Your task to perform on an android device: turn on bluetooth scan Image 0: 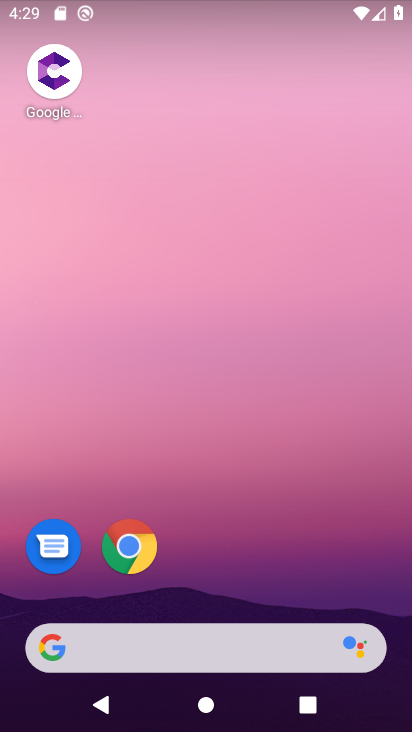
Step 0: drag from (300, 511) to (15, 108)
Your task to perform on an android device: turn on bluetooth scan Image 1: 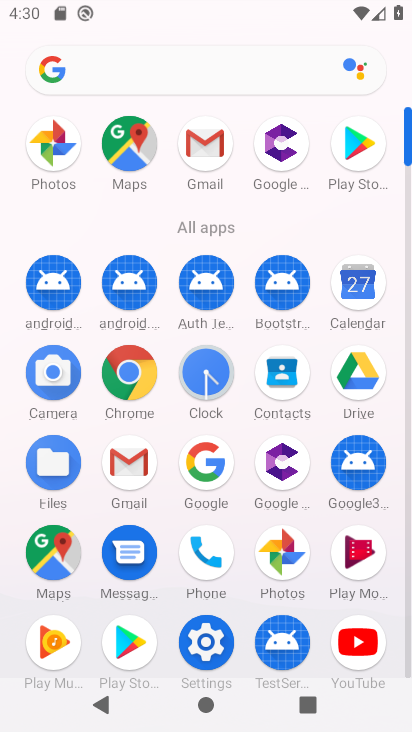
Step 1: drag from (17, 526) to (12, 278)
Your task to perform on an android device: turn on bluetooth scan Image 2: 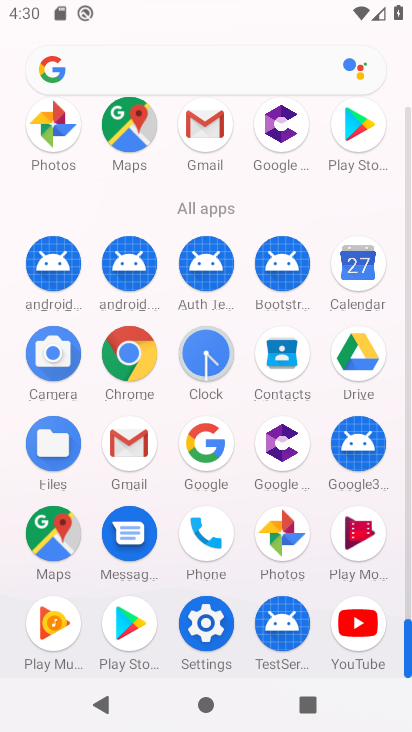
Step 2: click (209, 620)
Your task to perform on an android device: turn on bluetooth scan Image 3: 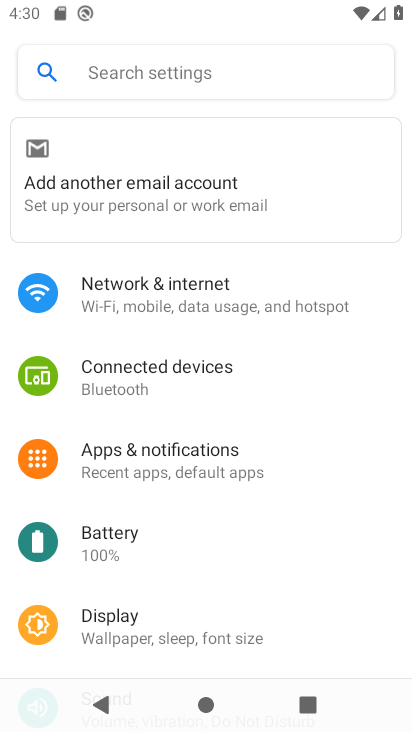
Step 3: drag from (253, 580) to (290, 182)
Your task to perform on an android device: turn on bluetooth scan Image 4: 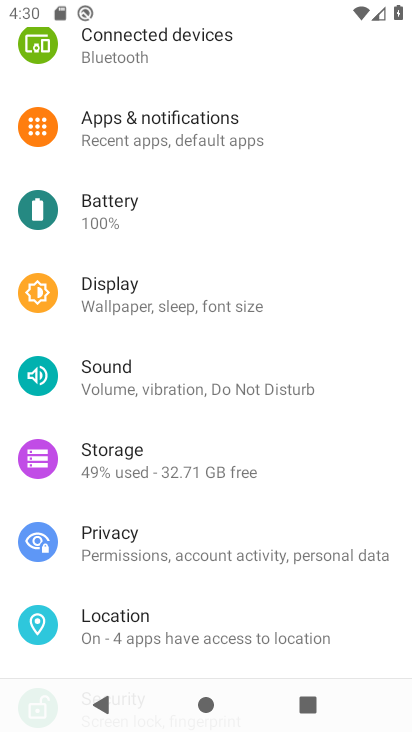
Step 4: drag from (257, 597) to (292, 275)
Your task to perform on an android device: turn on bluetooth scan Image 5: 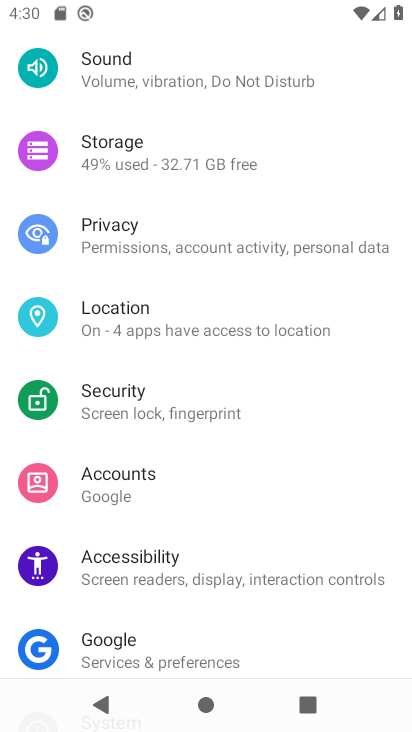
Step 5: click (139, 308)
Your task to perform on an android device: turn on bluetooth scan Image 6: 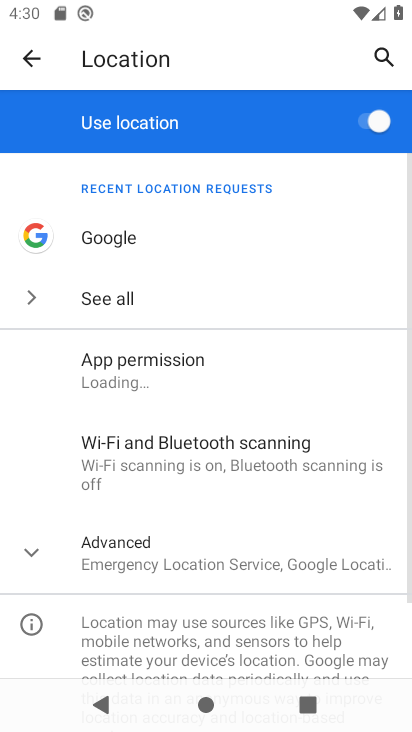
Step 6: click (50, 565)
Your task to perform on an android device: turn on bluetooth scan Image 7: 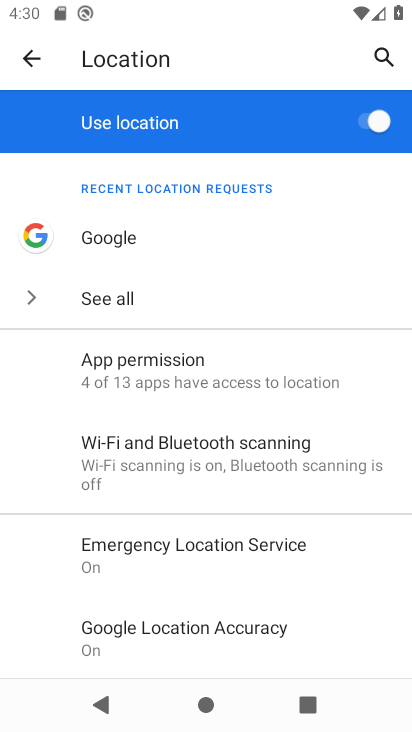
Step 7: drag from (250, 485) to (239, 270)
Your task to perform on an android device: turn on bluetooth scan Image 8: 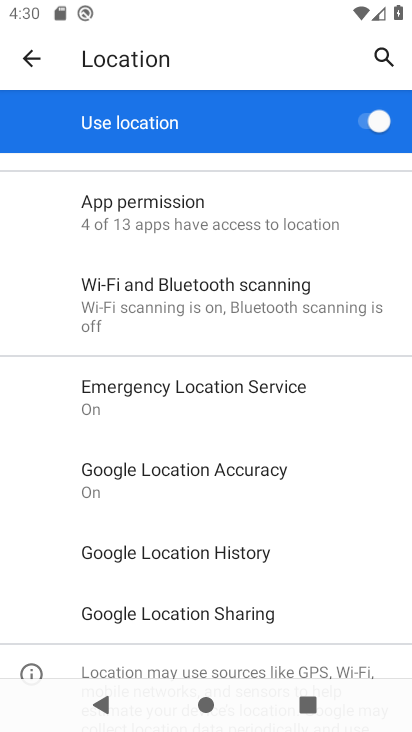
Step 8: click (192, 297)
Your task to perform on an android device: turn on bluetooth scan Image 9: 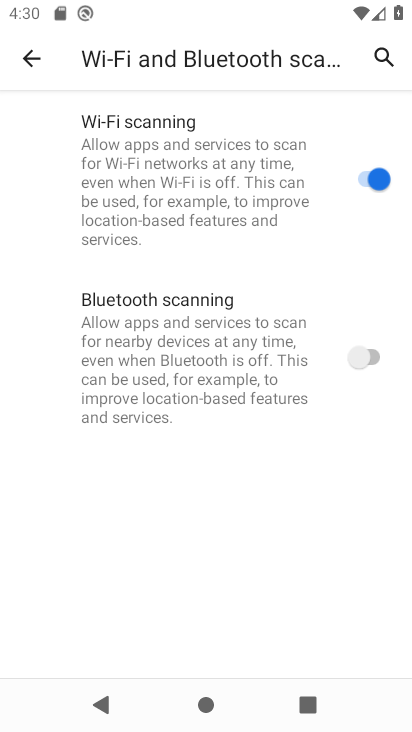
Step 9: click (359, 357)
Your task to perform on an android device: turn on bluetooth scan Image 10: 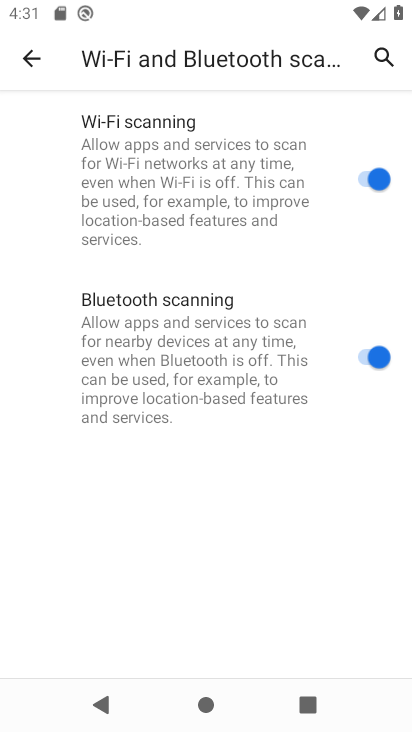
Step 10: task complete